Your task to perform on an android device: open device folders in google photos Image 0: 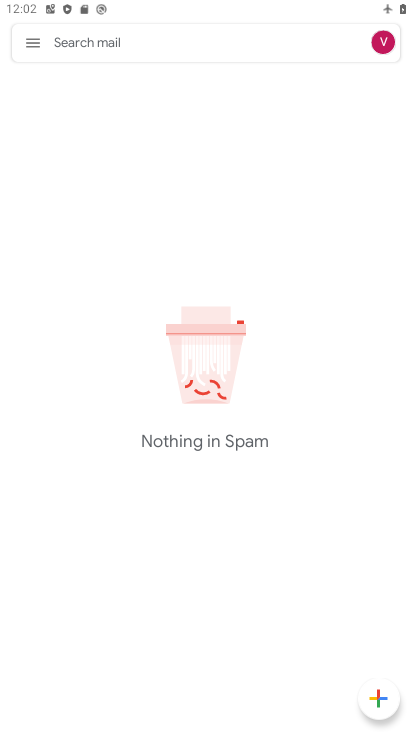
Step 0: press home button
Your task to perform on an android device: open device folders in google photos Image 1: 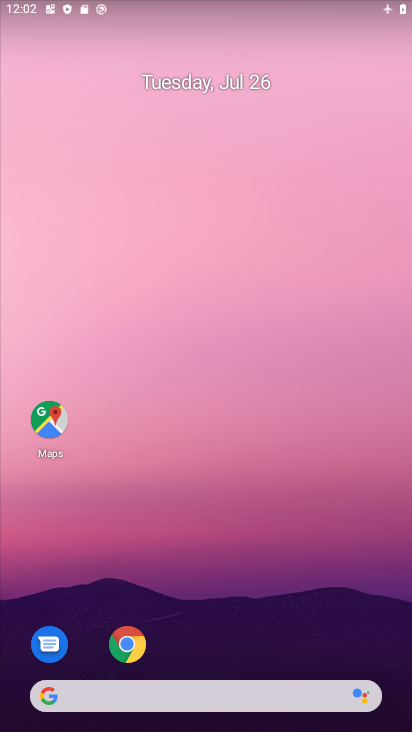
Step 1: drag from (210, 654) to (234, 171)
Your task to perform on an android device: open device folders in google photos Image 2: 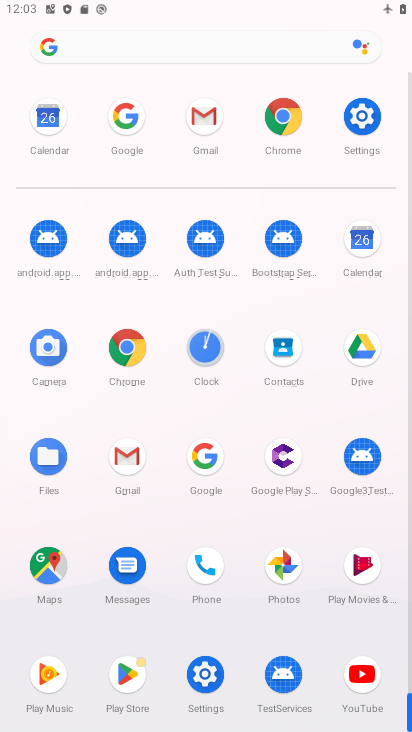
Step 2: click (275, 583)
Your task to perform on an android device: open device folders in google photos Image 3: 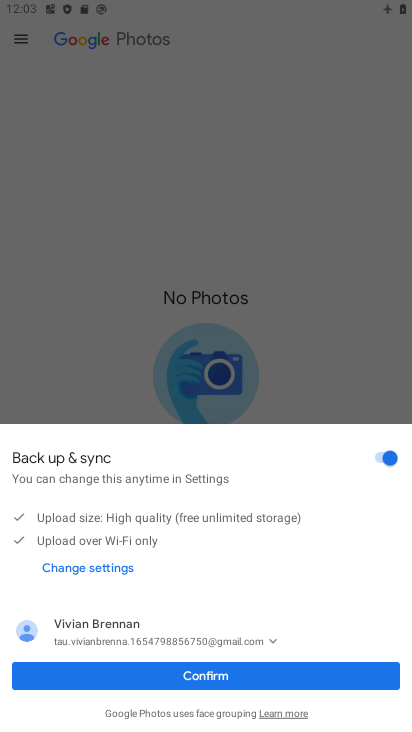
Step 3: click (229, 675)
Your task to perform on an android device: open device folders in google photos Image 4: 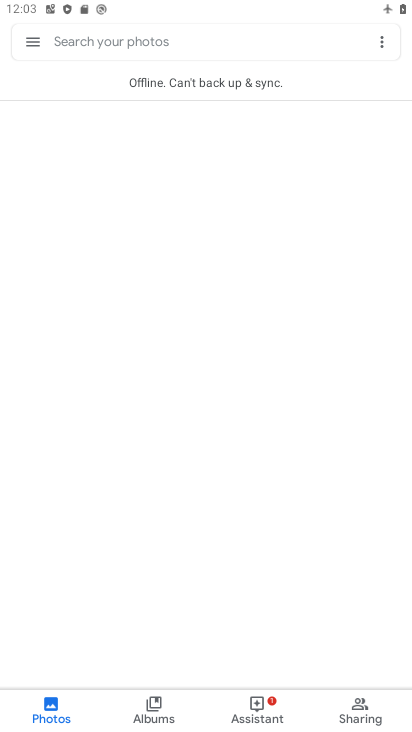
Step 4: click (37, 40)
Your task to perform on an android device: open device folders in google photos Image 5: 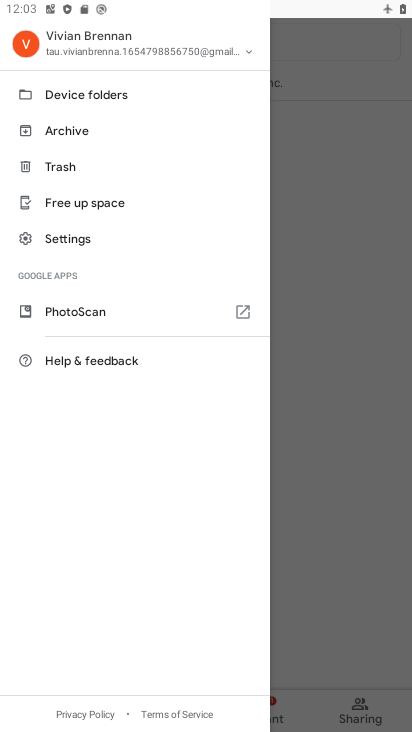
Step 5: click (73, 101)
Your task to perform on an android device: open device folders in google photos Image 6: 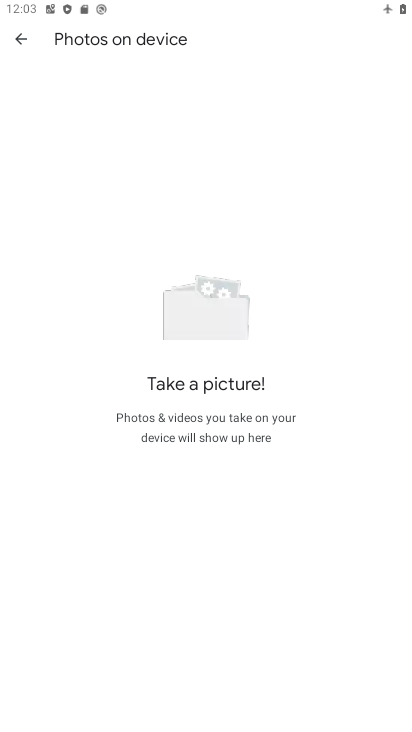
Step 6: task complete